Your task to perform on an android device: Go to accessibility settings Image 0: 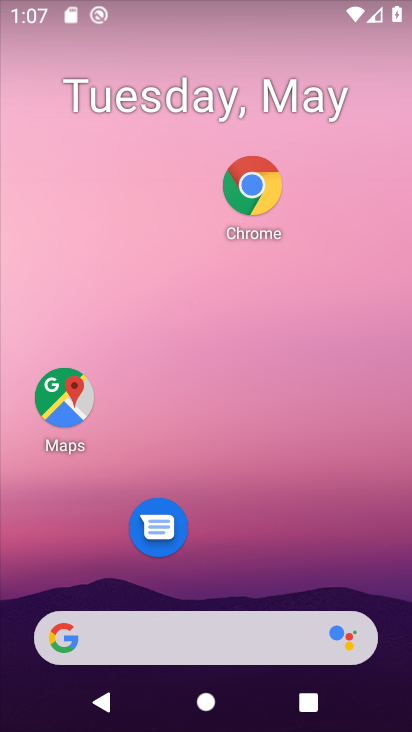
Step 0: drag from (231, 461) to (115, 17)
Your task to perform on an android device: Go to accessibility settings Image 1: 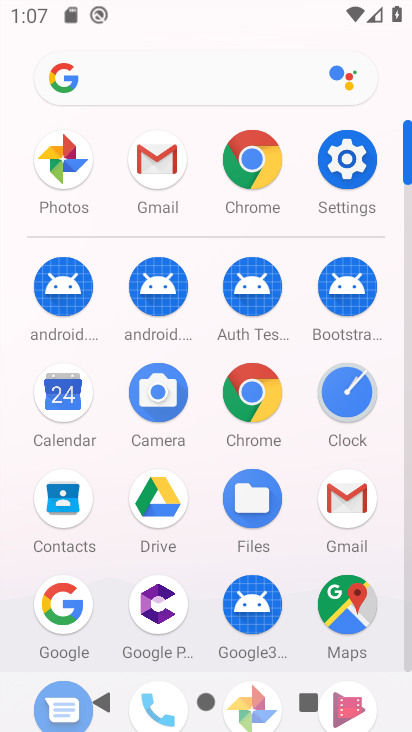
Step 1: click (344, 159)
Your task to perform on an android device: Go to accessibility settings Image 2: 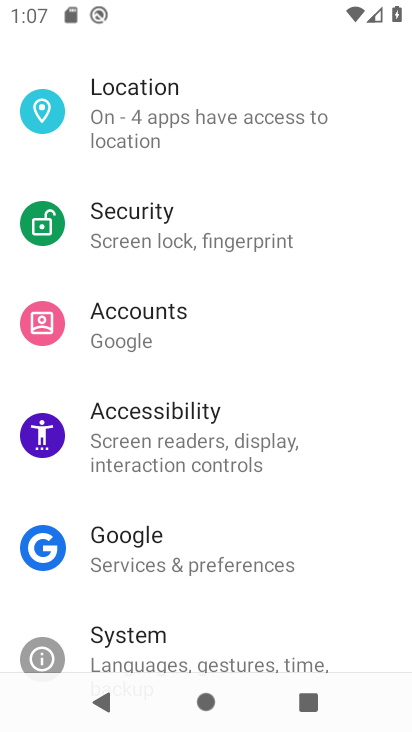
Step 2: click (154, 410)
Your task to perform on an android device: Go to accessibility settings Image 3: 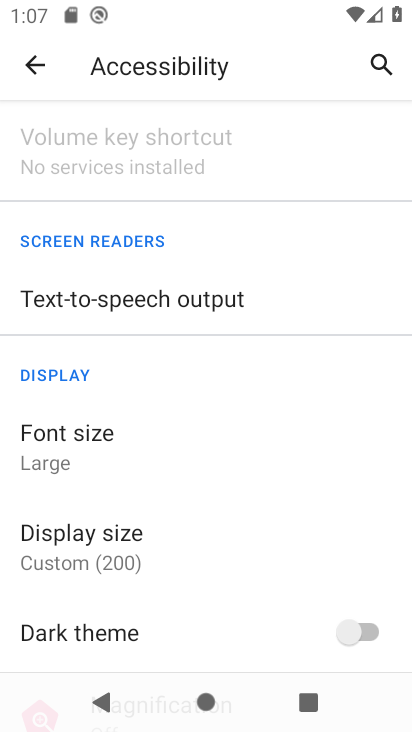
Step 3: task complete